Your task to perform on an android device: turn off picture-in-picture Image 0: 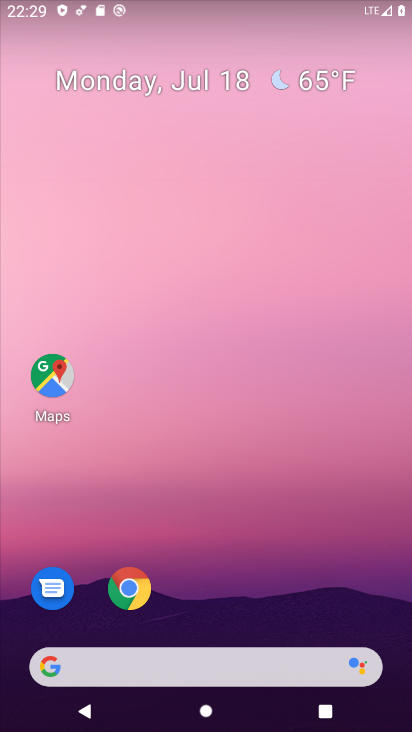
Step 0: press home button
Your task to perform on an android device: turn off picture-in-picture Image 1: 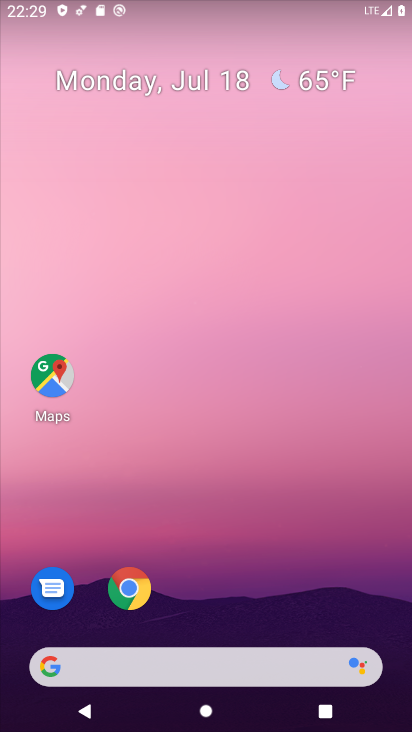
Step 1: click (132, 585)
Your task to perform on an android device: turn off picture-in-picture Image 2: 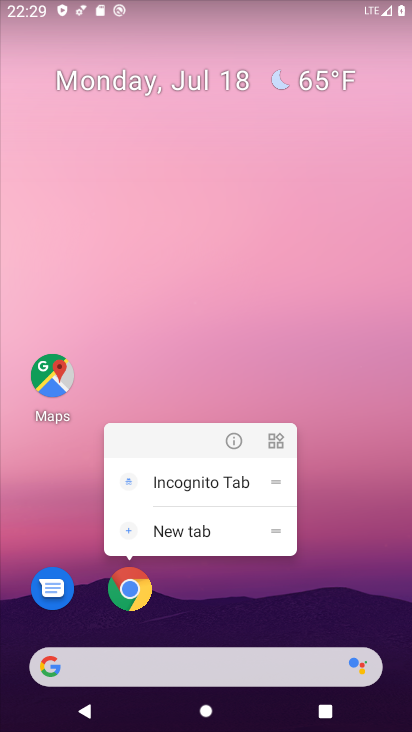
Step 2: click (230, 437)
Your task to perform on an android device: turn off picture-in-picture Image 3: 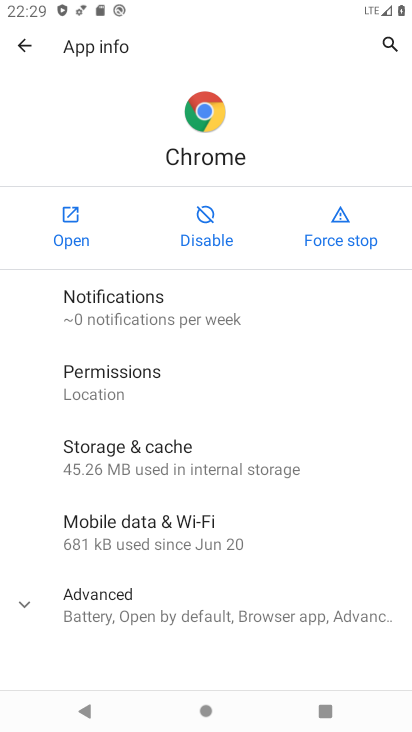
Step 3: click (22, 603)
Your task to perform on an android device: turn off picture-in-picture Image 4: 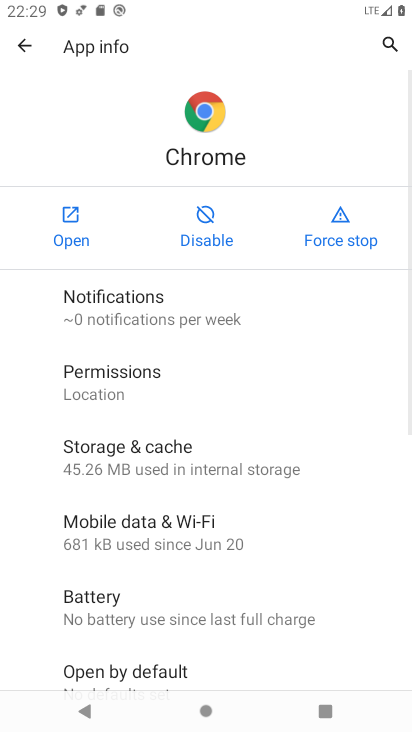
Step 4: drag from (343, 584) to (348, 273)
Your task to perform on an android device: turn off picture-in-picture Image 5: 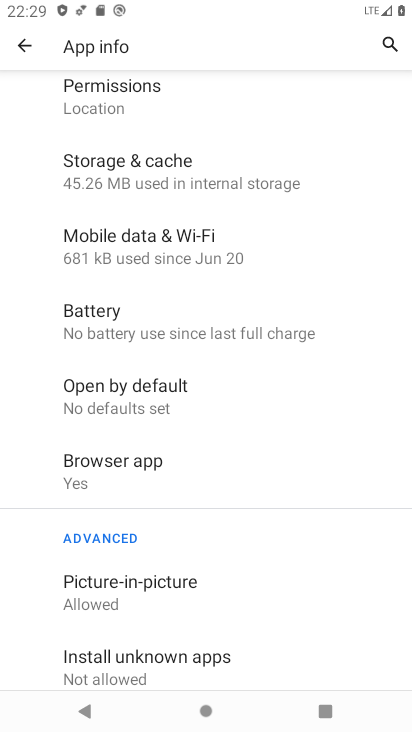
Step 5: click (106, 597)
Your task to perform on an android device: turn off picture-in-picture Image 6: 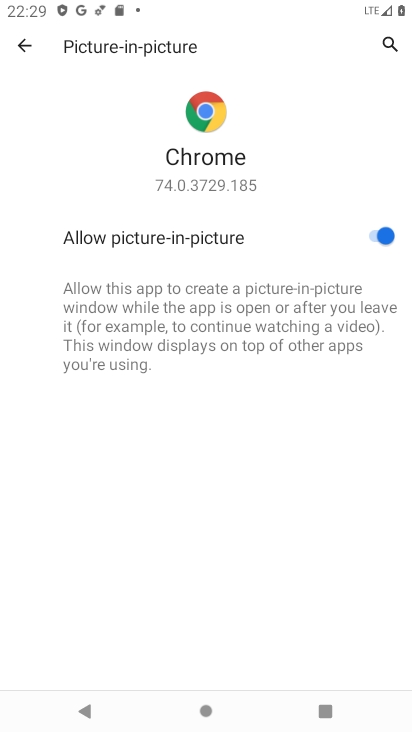
Step 6: click (383, 233)
Your task to perform on an android device: turn off picture-in-picture Image 7: 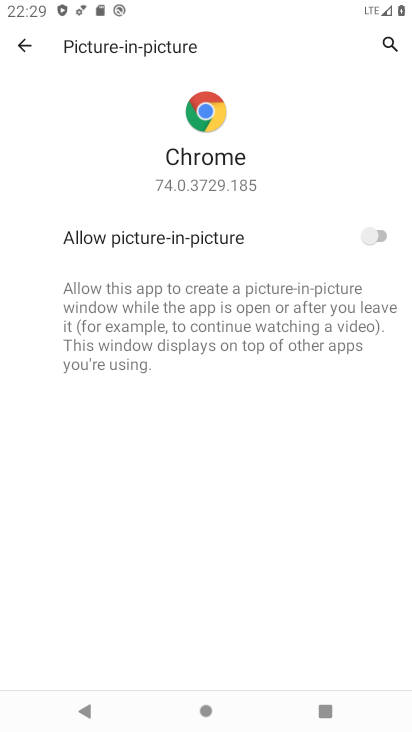
Step 7: task complete